Your task to perform on an android device: change the clock style Image 0: 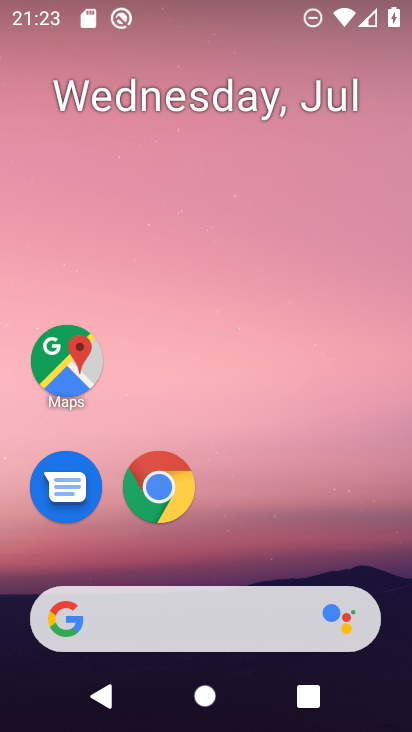
Step 0: drag from (388, 456) to (378, 79)
Your task to perform on an android device: change the clock style Image 1: 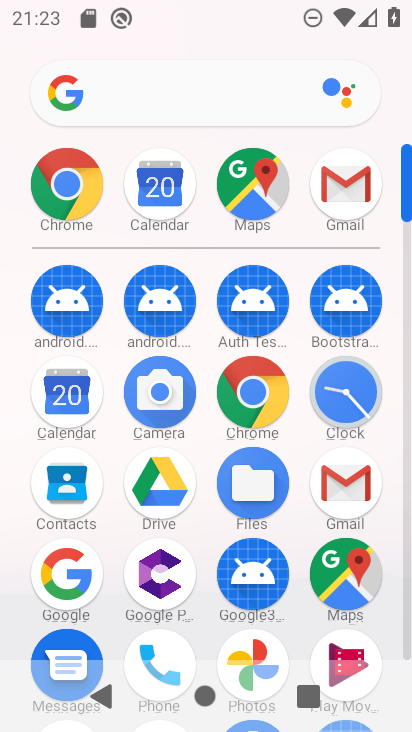
Step 1: click (353, 391)
Your task to perform on an android device: change the clock style Image 2: 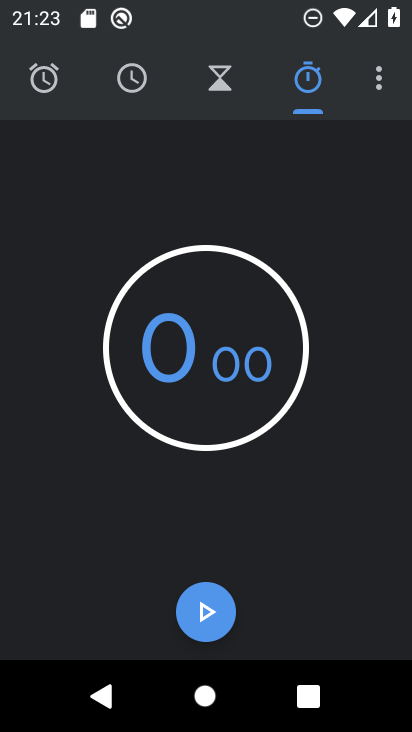
Step 2: click (380, 87)
Your task to perform on an android device: change the clock style Image 3: 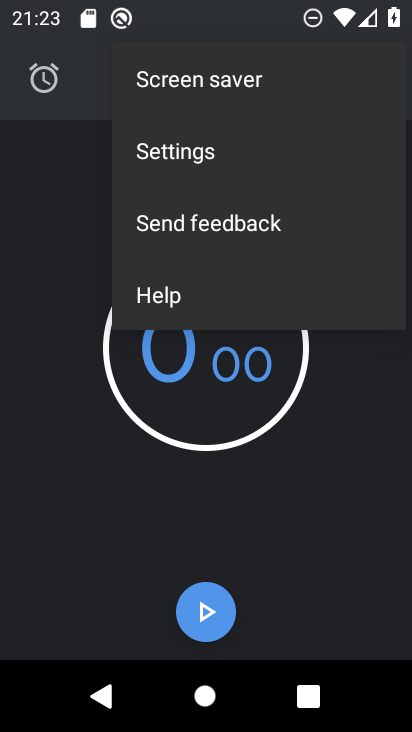
Step 3: click (329, 151)
Your task to perform on an android device: change the clock style Image 4: 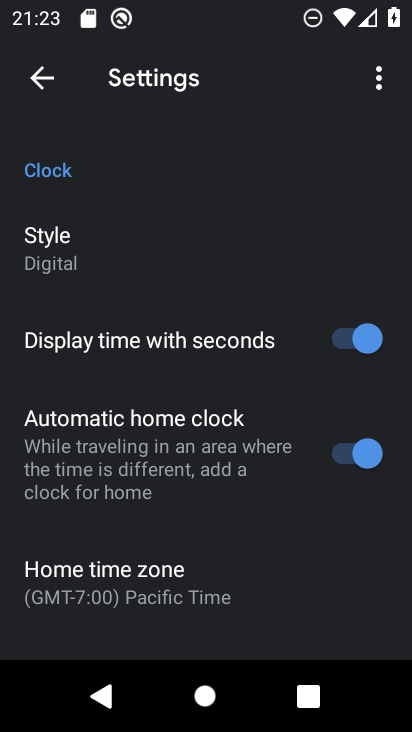
Step 4: drag from (292, 488) to (292, 423)
Your task to perform on an android device: change the clock style Image 5: 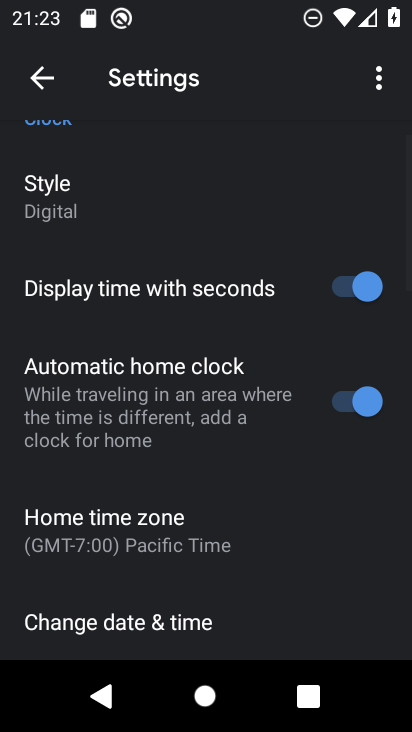
Step 5: drag from (286, 479) to (286, 415)
Your task to perform on an android device: change the clock style Image 6: 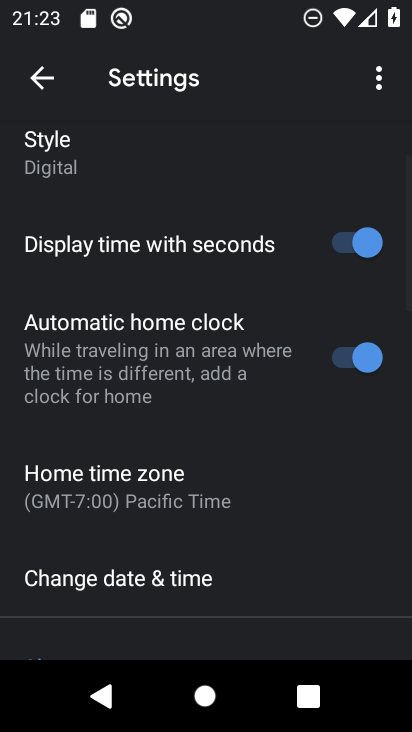
Step 6: drag from (287, 490) to (299, 395)
Your task to perform on an android device: change the clock style Image 7: 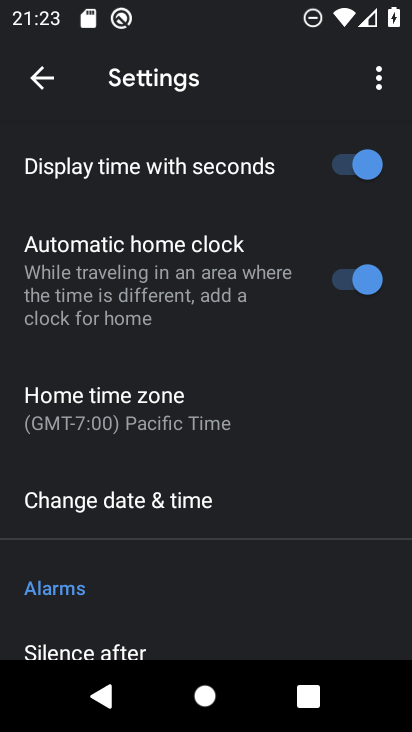
Step 7: drag from (296, 465) to (296, 368)
Your task to perform on an android device: change the clock style Image 8: 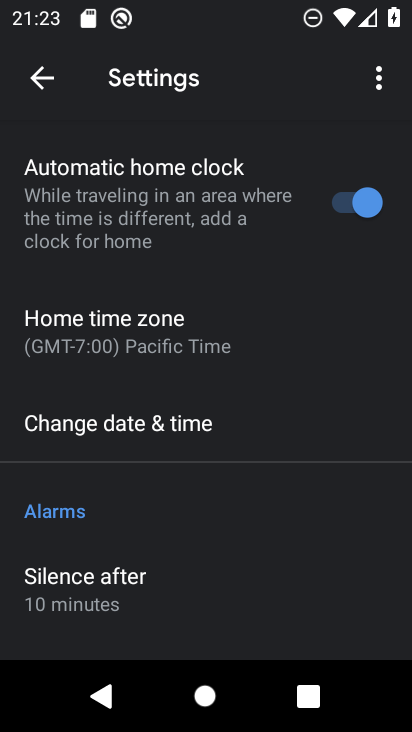
Step 8: drag from (287, 501) to (288, 386)
Your task to perform on an android device: change the clock style Image 9: 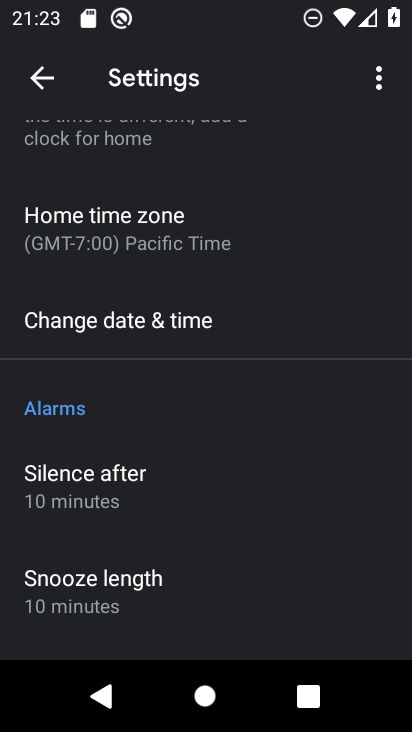
Step 9: drag from (287, 467) to (311, 283)
Your task to perform on an android device: change the clock style Image 10: 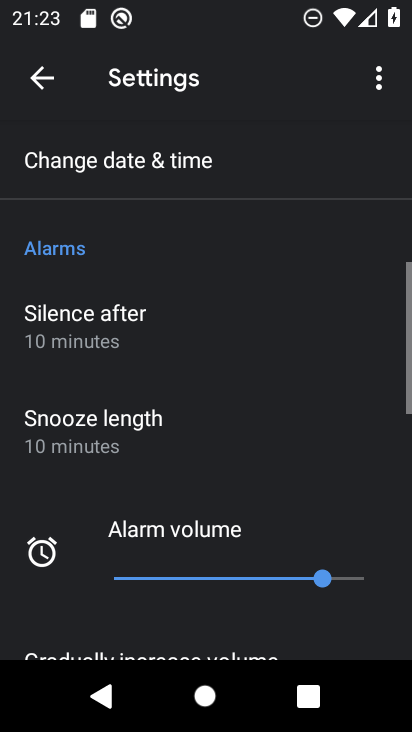
Step 10: drag from (311, 215) to (313, 348)
Your task to perform on an android device: change the clock style Image 11: 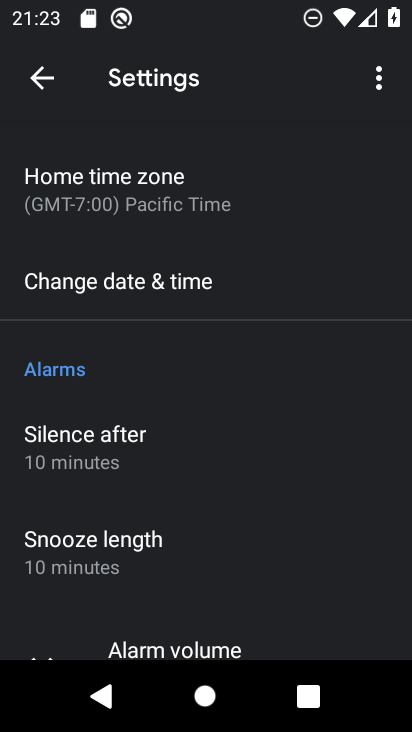
Step 11: drag from (325, 220) to (327, 328)
Your task to perform on an android device: change the clock style Image 12: 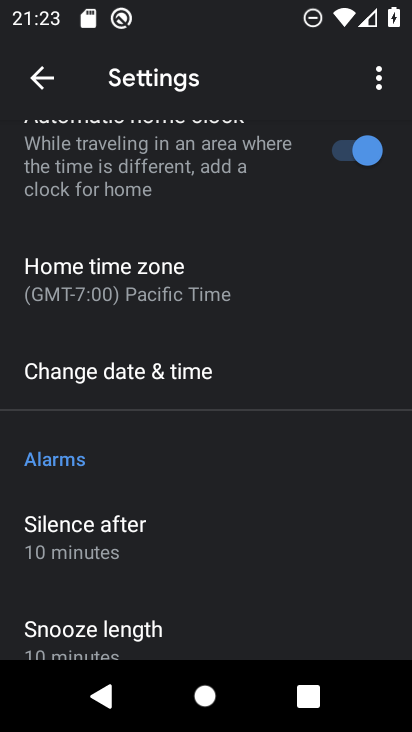
Step 12: drag from (309, 192) to (304, 303)
Your task to perform on an android device: change the clock style Image 13: 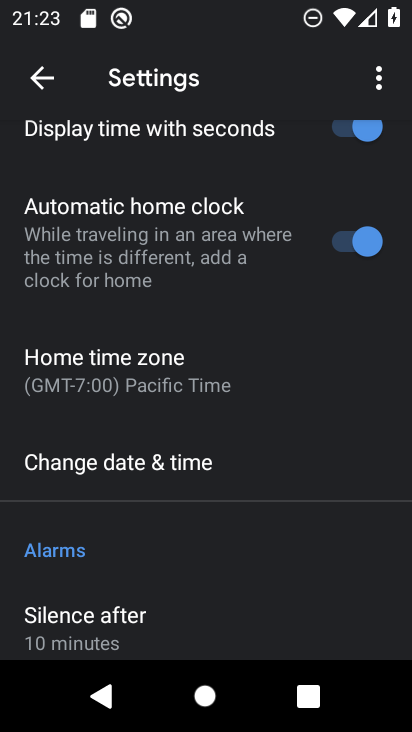
Step 13: drag from (286, 145) to (296, 299)
Your task to perform on an android device: change the clock style Image 14: 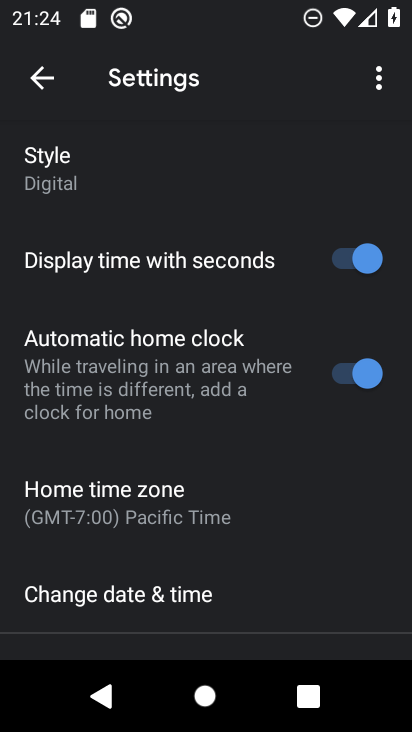
Step 14: click (73, 203)
Your task to perform on an android device: change the clock style Image 15: 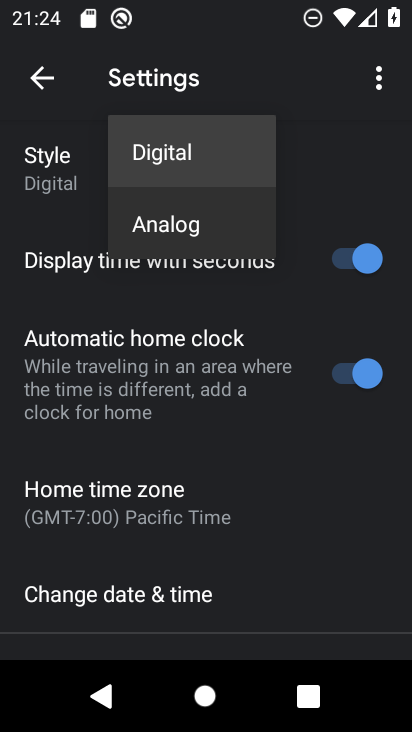
Step 15: click (192, 232)
Your task to perform on an android device: change the clock style Image 16: 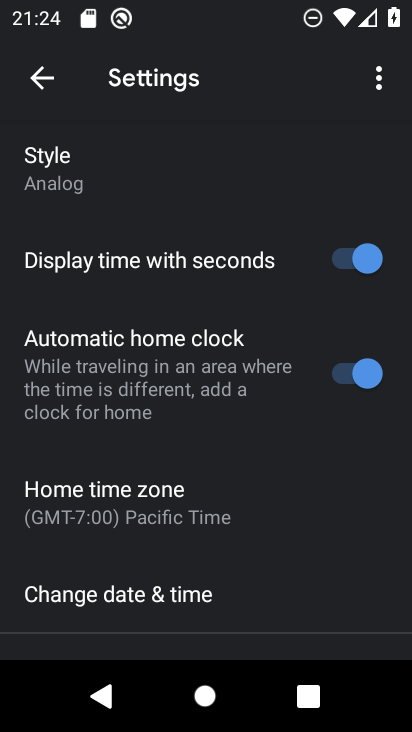
Step 16: task complete